Your task to perform on an android device: choose inbox layout in the gmail app Image 0: 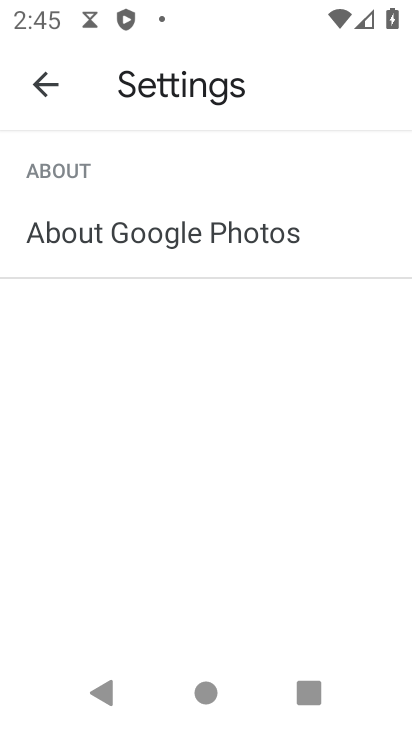
Step 0: press back button
Your task to perform on an android device: choose inbox layout in the gmail app Image 1: 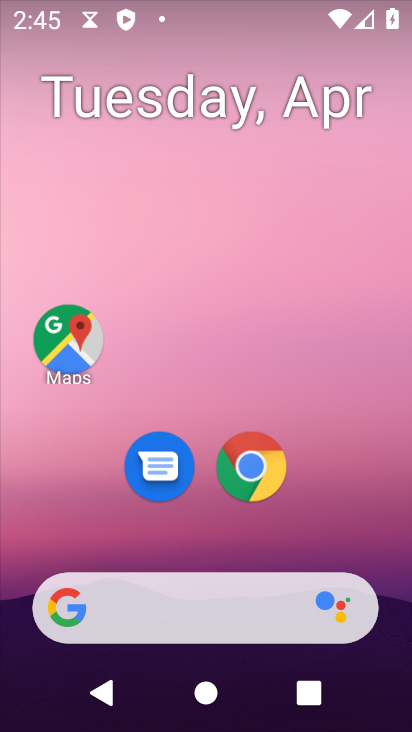
Step 1: drag from (325, 458) to (222, 70)
Your task to perform on an android device: choose inbox layout in the gmail app Image 2: 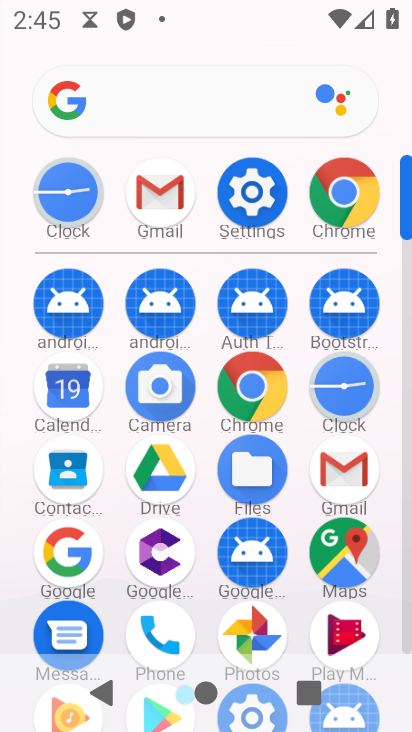
Step 2: drag from (12, 428) to (10, 237)
Your task to perform on an android device: choose inbox layout in the gmail app Image 3: 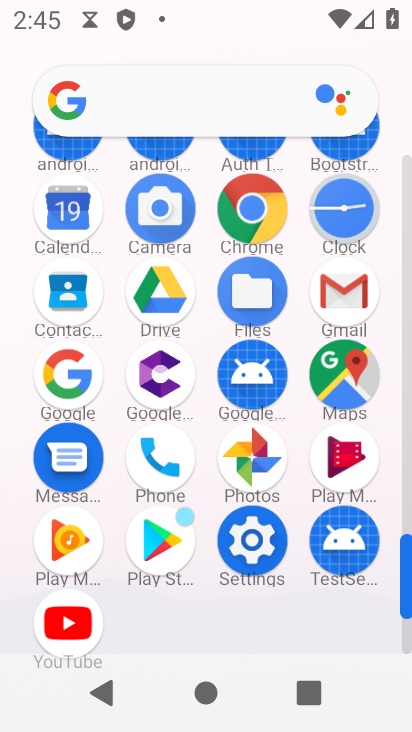
Step 3: drag from (21, 322) to (2, 467)
Your task to perform on an android device: choose inbox layout in the gmail app Image 4: 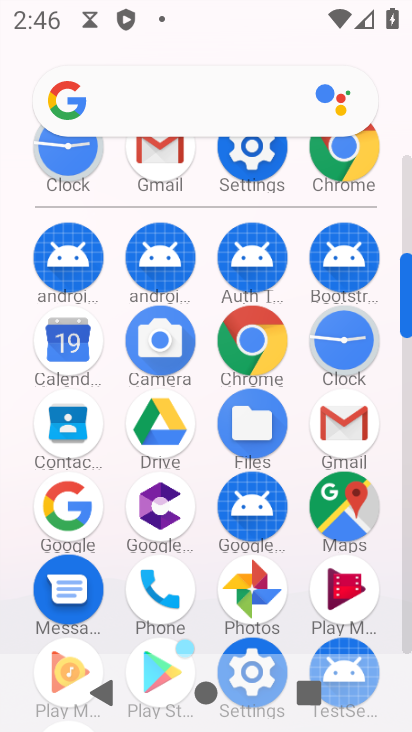
Step 4: click (347, 413)
Your task to perform on an android device: choose inbox layout in the gmail app Image 5: 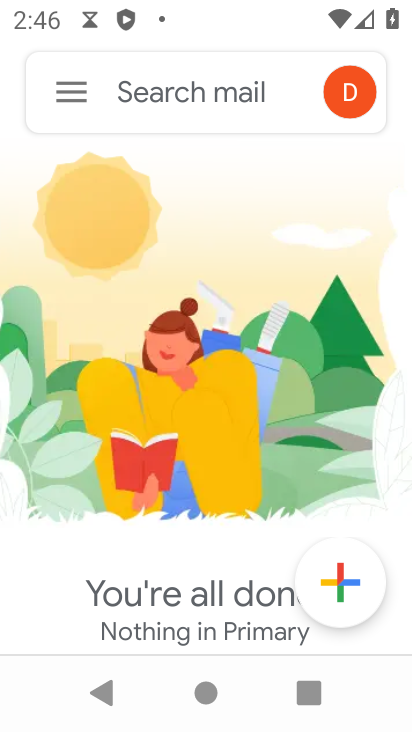
Step 5: click (71, 91)
Your task to perform on an android device: choose inbox layout in the gmail app Image 6: 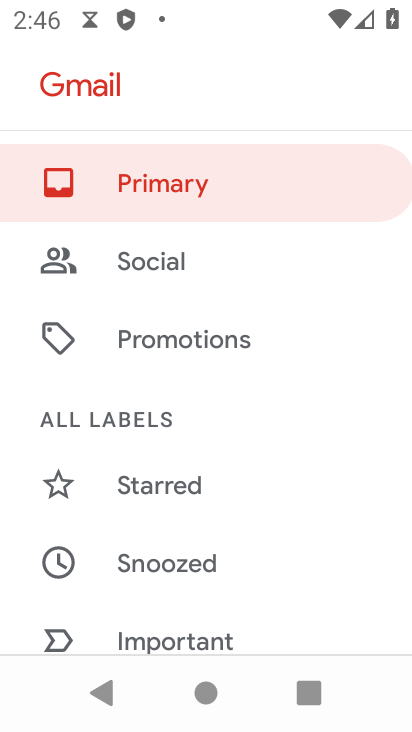
Step 6: drag from (222, 521) to (203, 151)
Your task to perform on an android device: choose inbox layout in the gmail app Image 7: 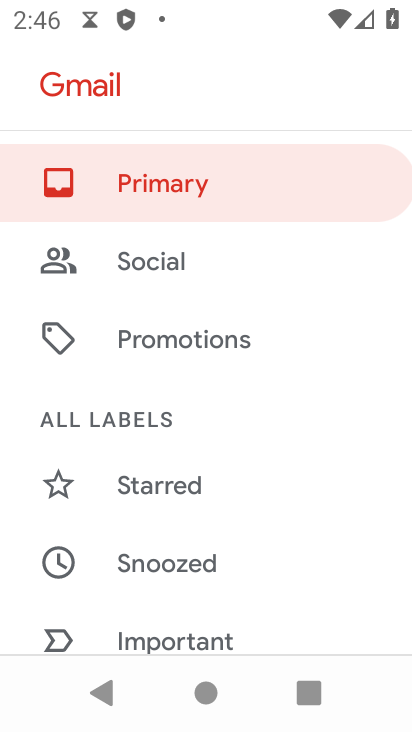
Step 7: drag from (239, 525) to (231, 228)
Your task to perform on an android device: choose inbox layout in the gmail app Image 8: 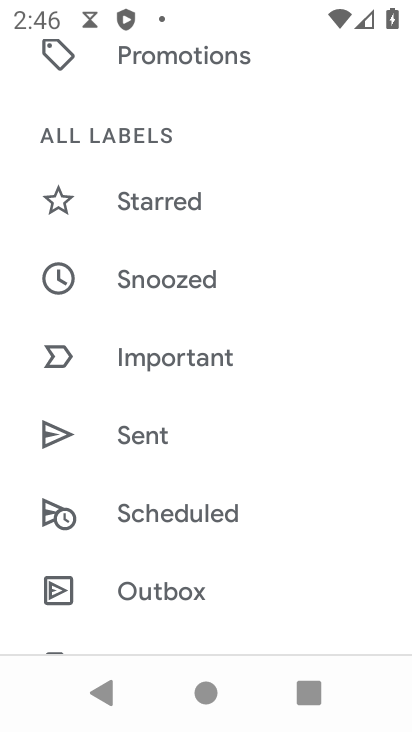
Step 8: drag from (242, 462) to (241, 108)
Your task to perform on an android device: choose inbox layout in the gmail app Image 9: 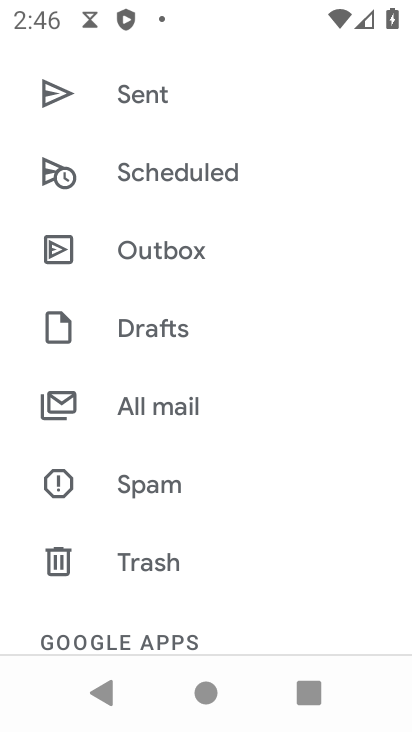
Step 9: drag from (205, 444) to (195, 66)
Your task to perform on an android device: choose inbox layout in the gmail app Image 10: 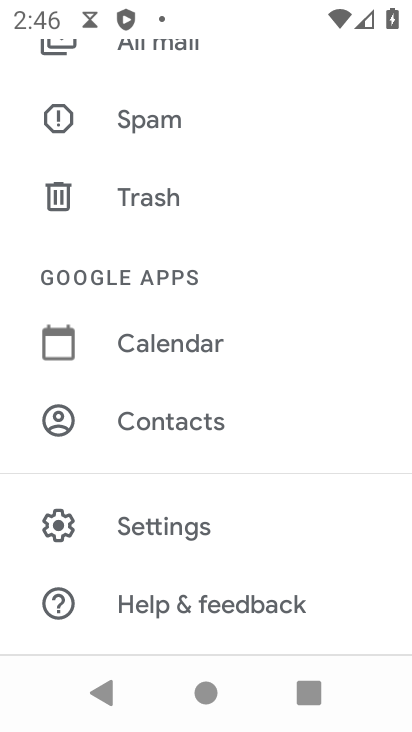
Step 10: click (174, 506)
Your task to perform on an android device: choose inbox layout in the gmail app Image 11: 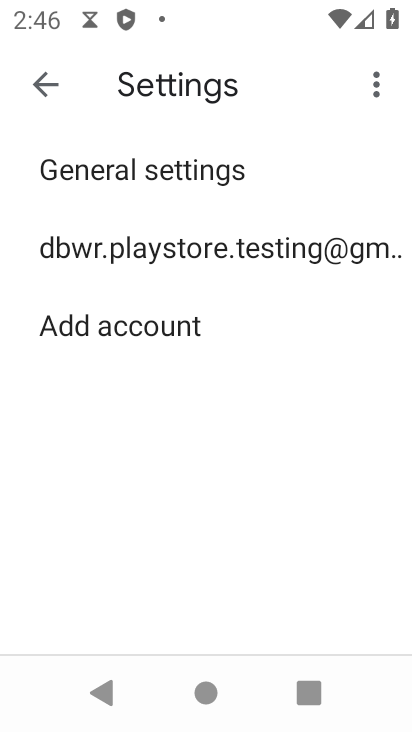
Step 11: click (172, 244)
Your task to perform on an android device: choose inbox layout in the gmail app Image 12: 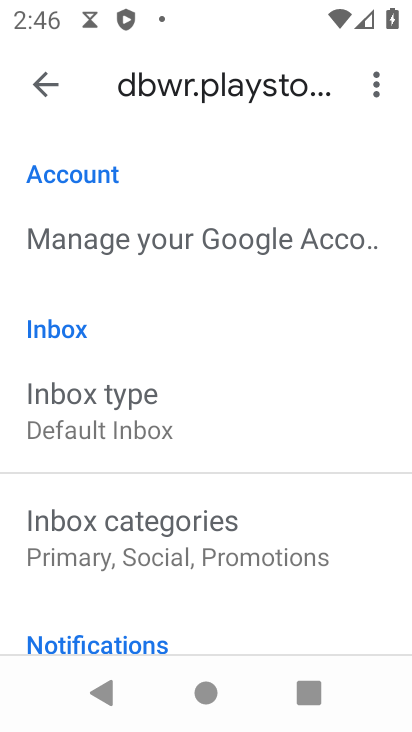
Step 12: click (151, 429)
Your task to perform on an android device: choose inbox layout in the gmail app Image 13: 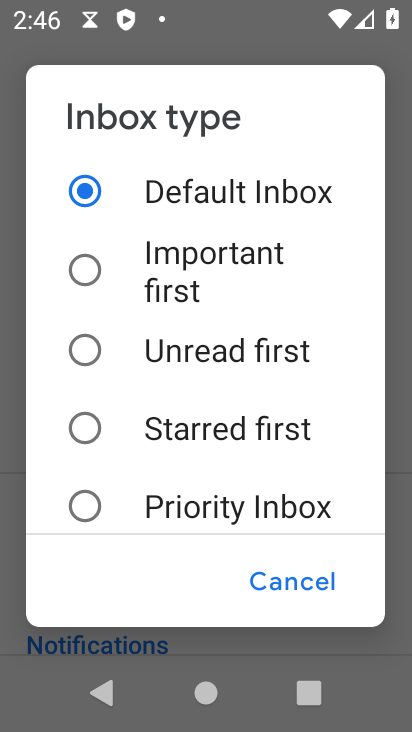
Step 13: click (188, 512)
Your task to perform on an android device: choose inbox layout in the gmail app Image 14: 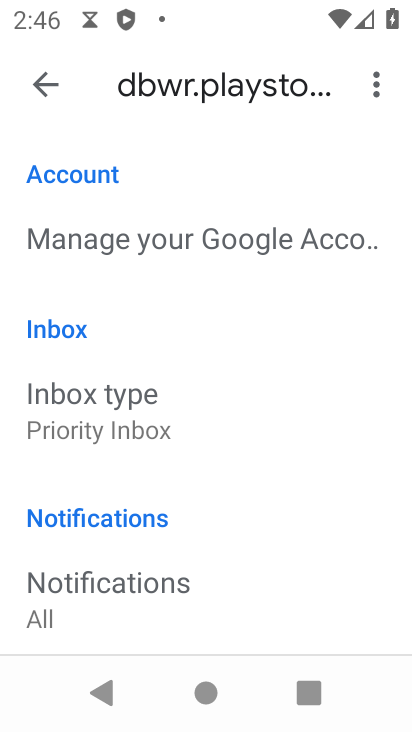
Step 14: task complete